Your task to perform on an android device: Open Chrome and go to the settings page Image 0: 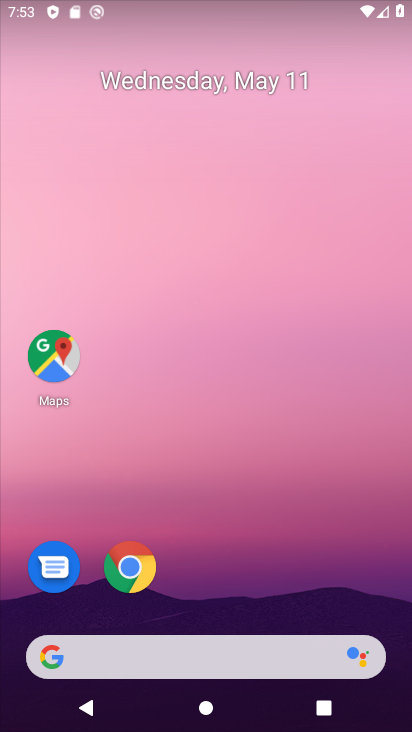
Step 0: click (131, 559)
Your task to perform on an android device: Open Chrome and go to the settings page Image 1: 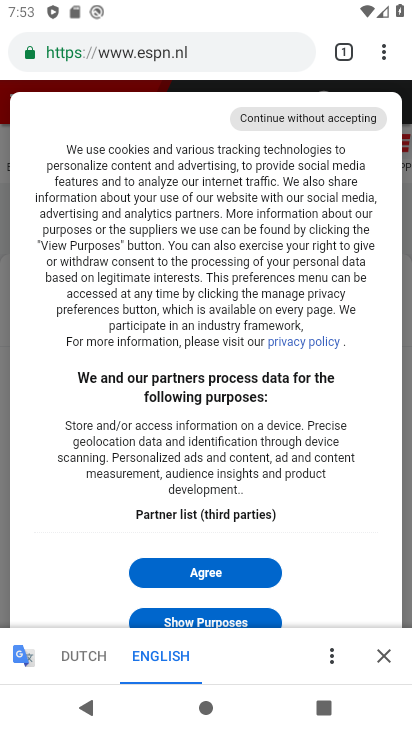
Step 1: click (378, 65)
Your task to perform on an android device: Open Chrome and go to the settings page Image 2: 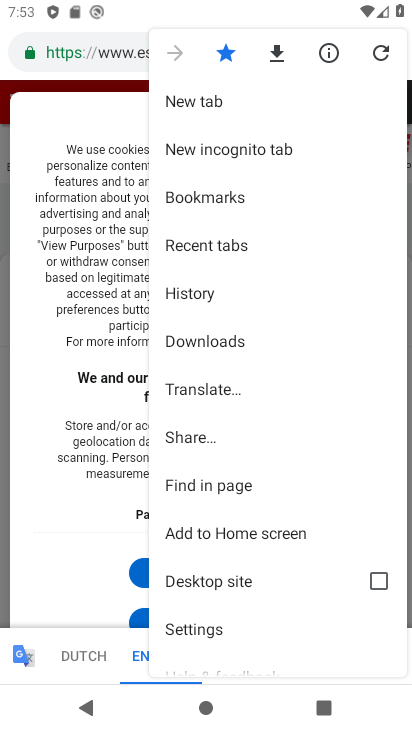
Step 2: click (205, 633)
Your task to perform on an android device: Open Chrome and go to the settings page Image 3: 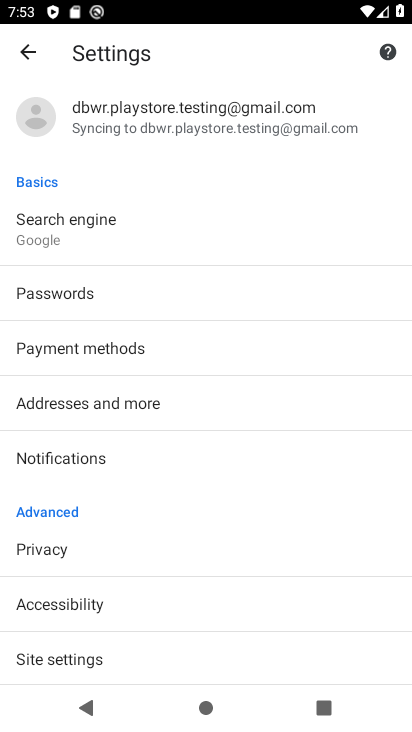
Step 3: task complete